Your task to perform on an android device: Open Maps and search for coffee Image 0: 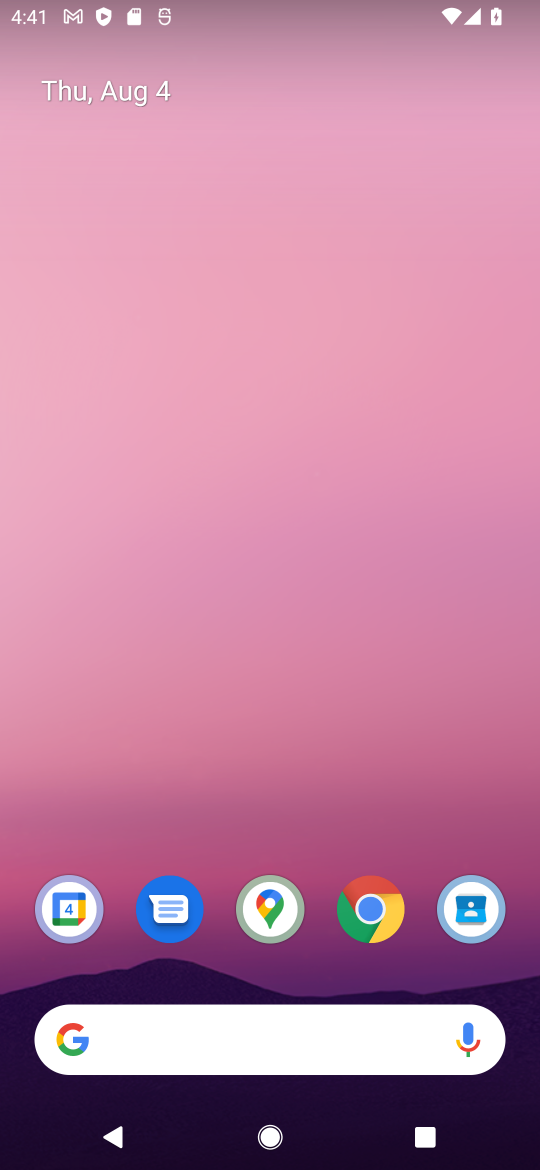
Step 0: click (281, 928)
Your task to perform on an android device: Open Maps and search for coffee Image 1: 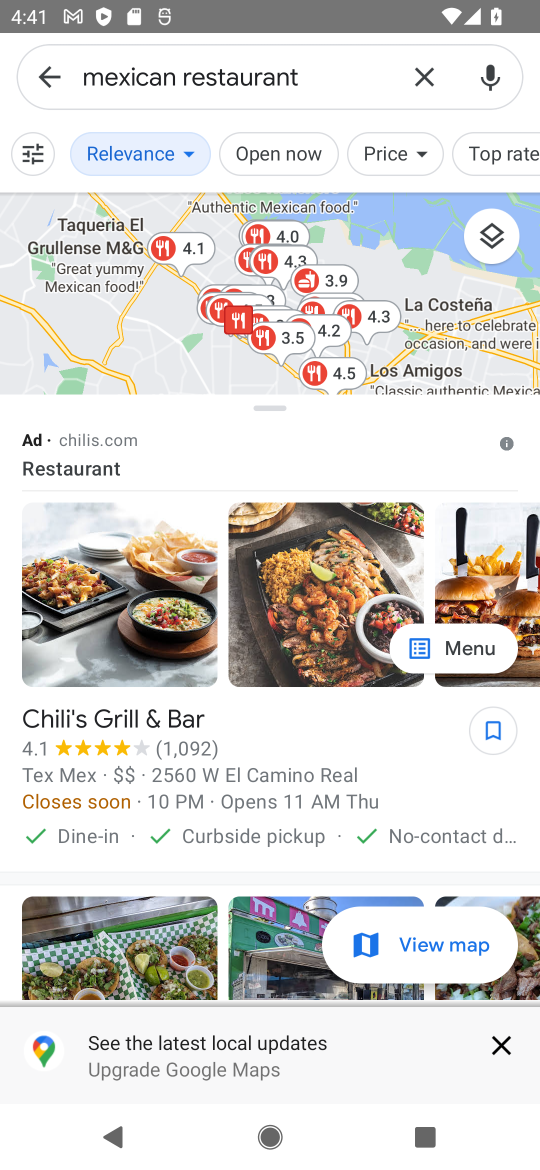
Step 1: click (219, 62)
Your task to perform on an android device: Open Maps and search for coffee Image 2: 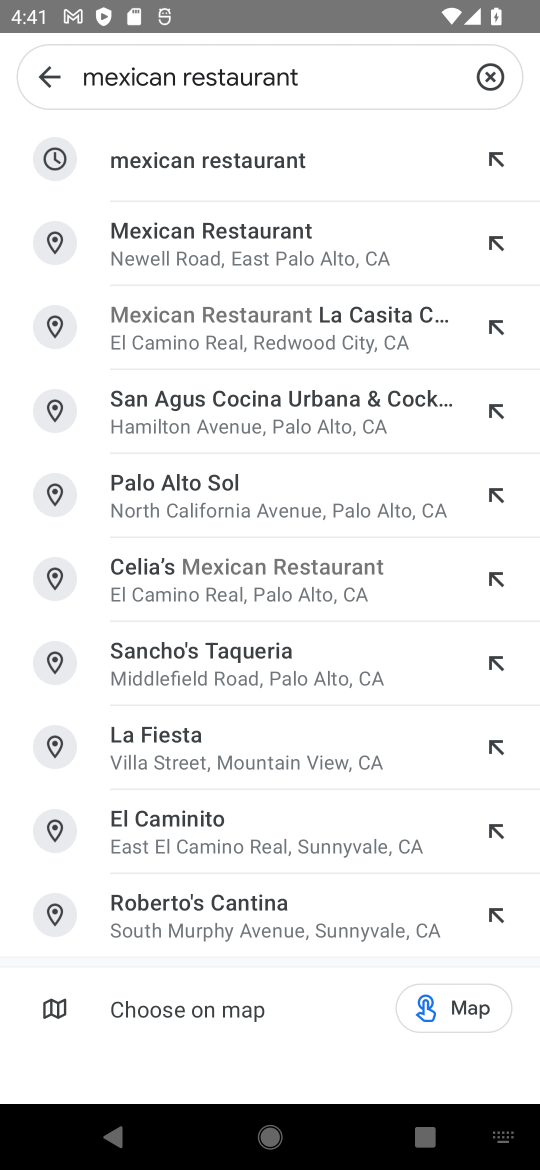
Step 2: click (495, 65)
Your task to perform on an android device: Open Maps and search for coffee Image 3: 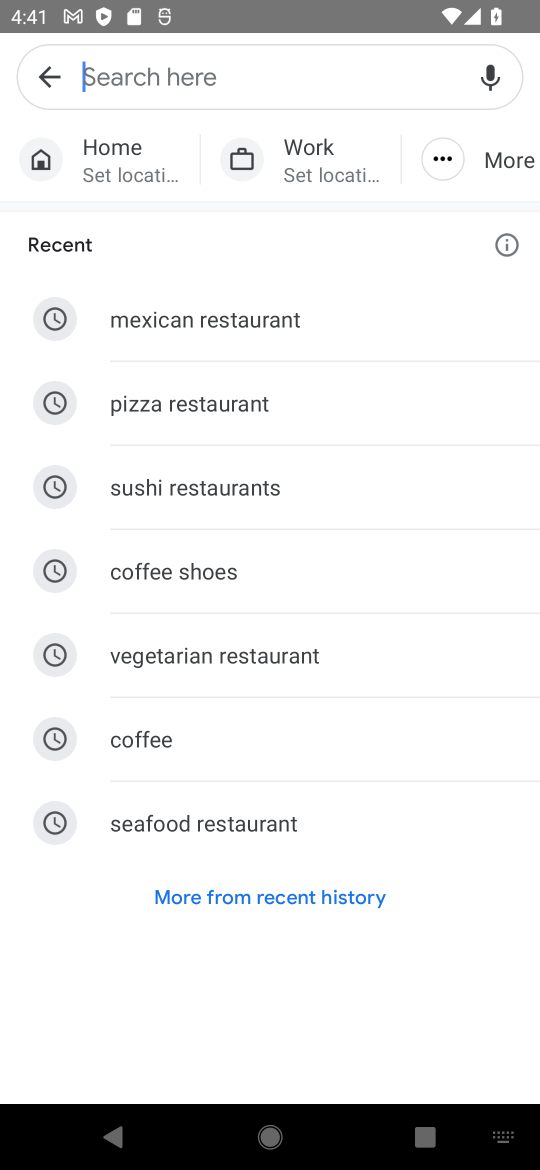
Step 3: type "coffee"
Your task to perform on an android device: Open Maps and search for coffee Image 4: 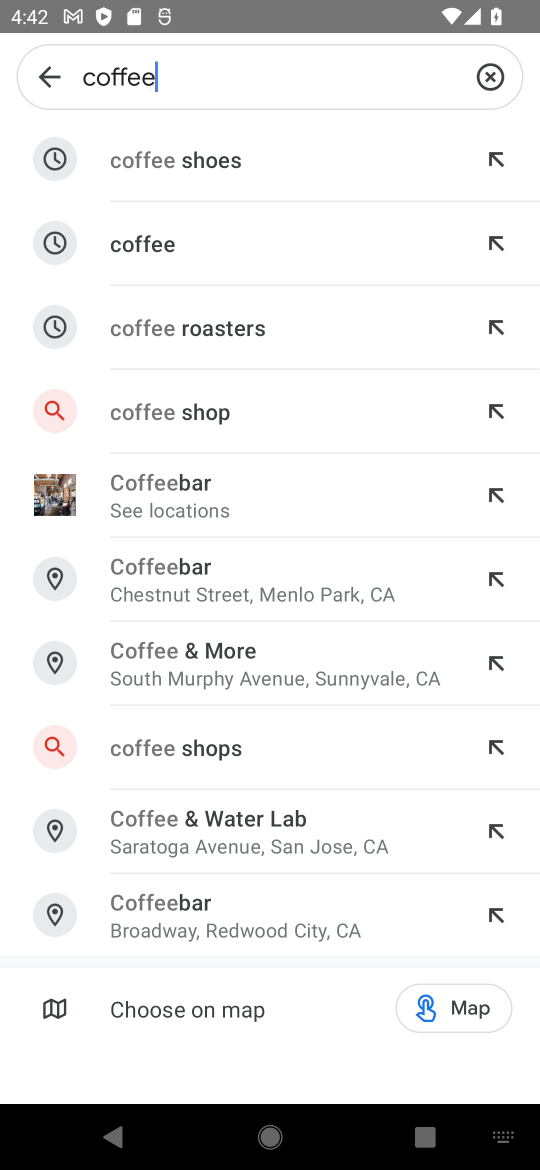
Step 4: click (168, 236)
Your task to perform on an android device: Open Maps and search for coffee Image 5: 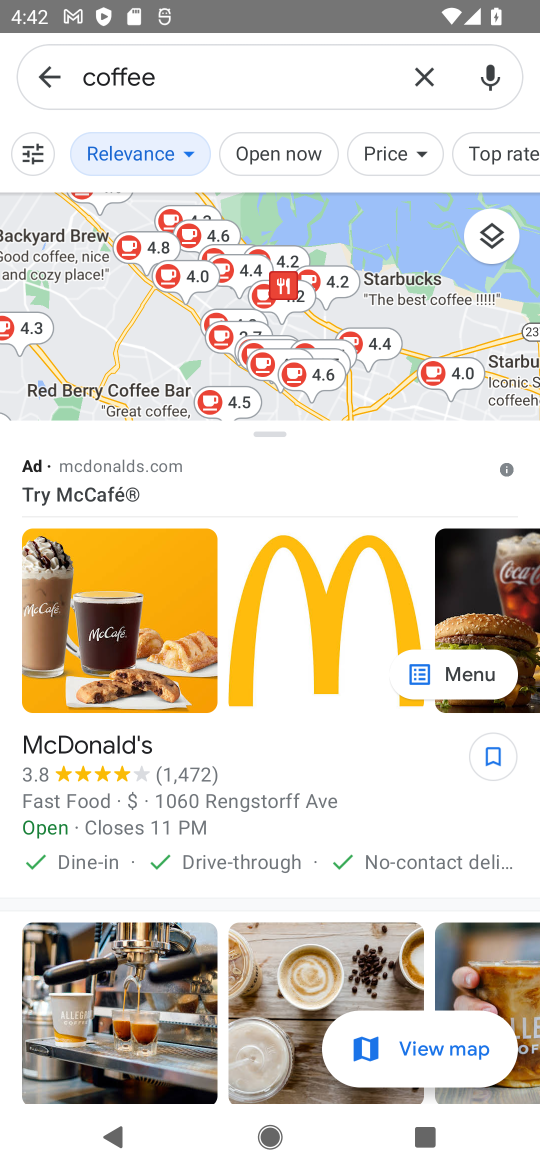
Step 5: task complete